Your task to perform on an android device: delete the emails in spam in the gmail app Image 0: 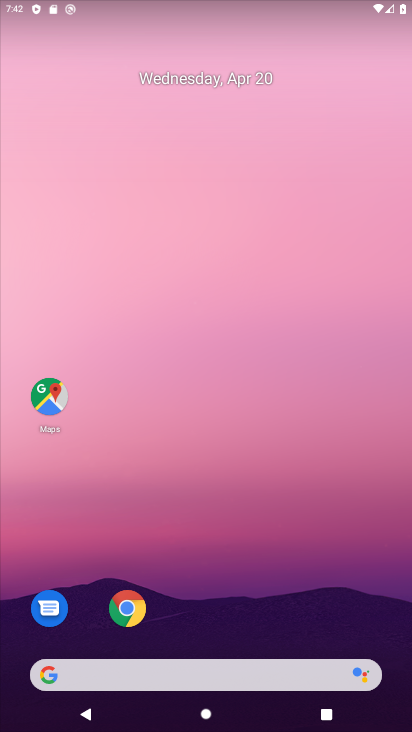
Step 0: drag from (193, 636) to (258, 0)
Your task to perform on an android device: delete the emails in spam in the gmail app Image 1: 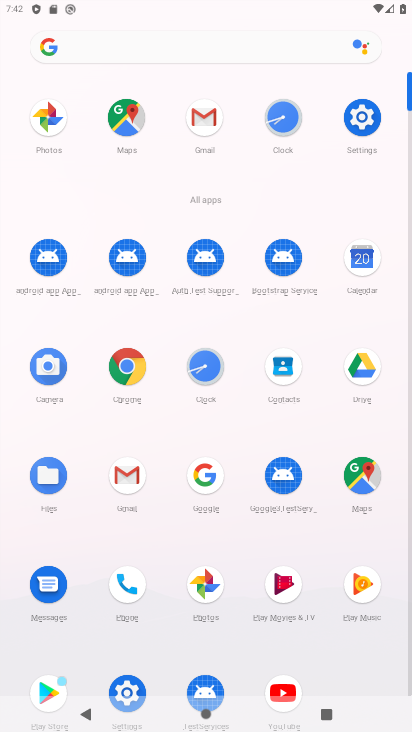
Step 1: click (195, 117)
Your task to perform on an android device: delete the emails in spam in the gmail app Image 2: 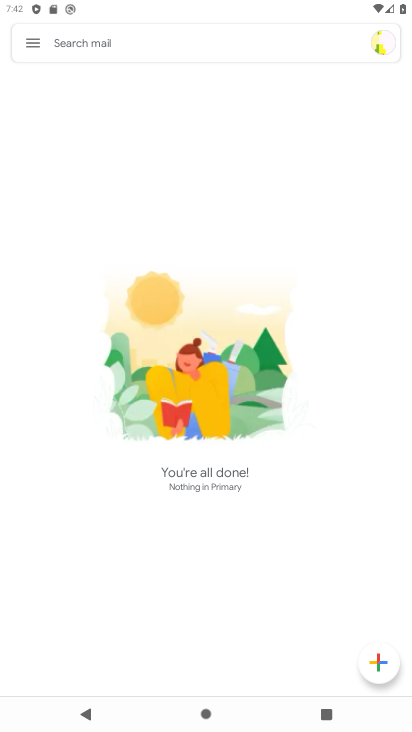
Step 2: click (39, 50)
Your task to perform on an android device: delete the emails in spam in the gmail app Image 3: 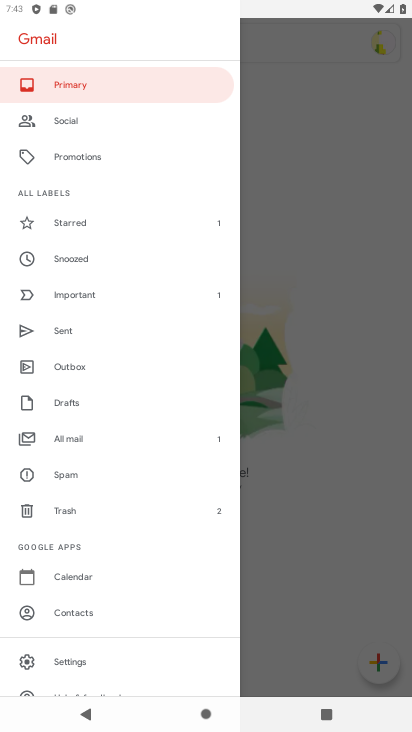
Step 3: click (91, 470)
Your task to perform on an android device: delete the emails in spam in the gmail app Image 4: 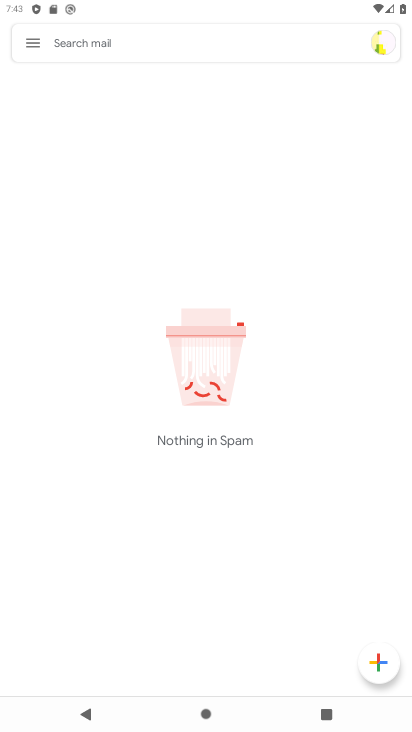
Step 4: task complete